Your task to perform on an android device: Go to Yahoo.com Image 0: 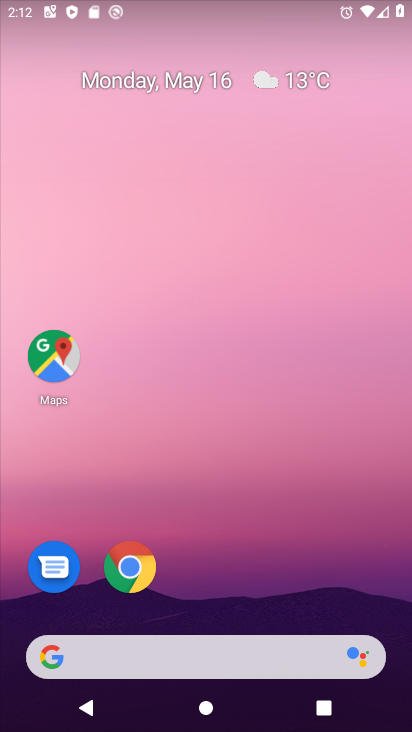
Step 0: press home button
Your task to perform on an android device: Go to Yahoo.com Image 1: 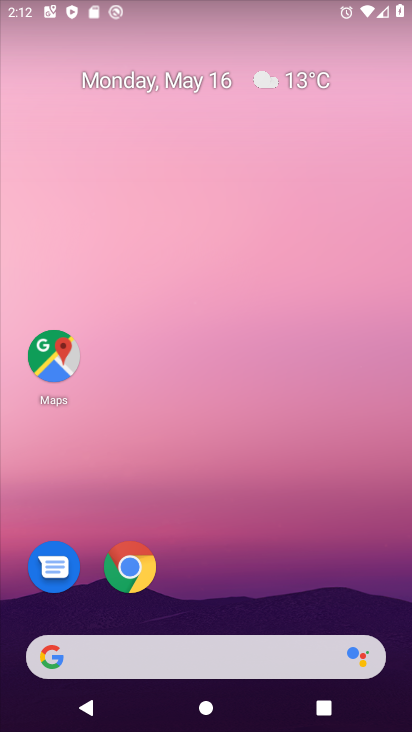
Step 1: click (137, 585)
Your task to perform on an android device: Go to Yahoo.com Image 2: 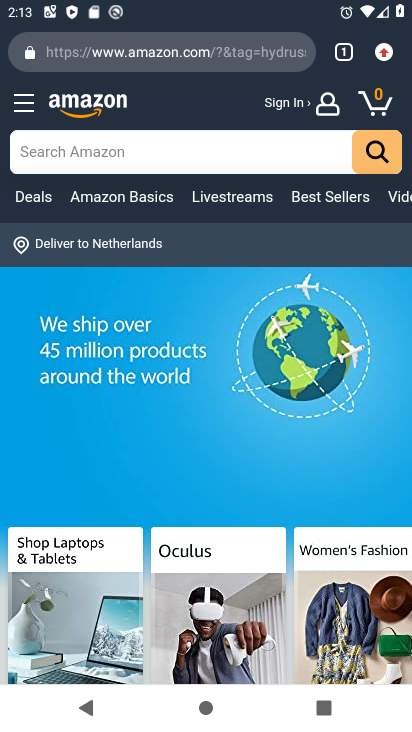
Step 2: click (126, 46)
Your task to perform on an android device: Go to Yahoo.com Image 3: 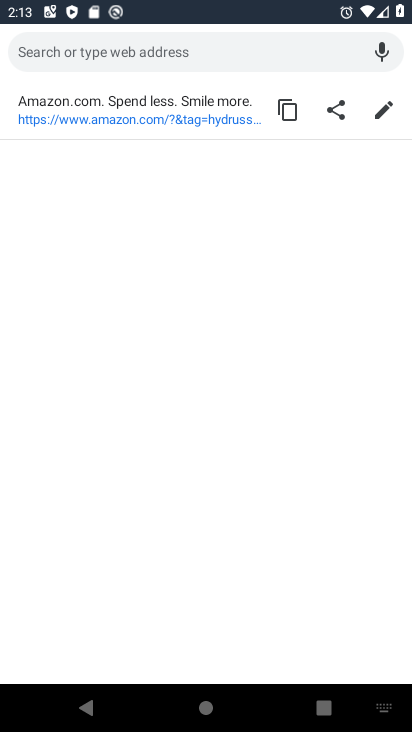
Step 3: type " Yahoo.com"
Your task to perform on an android device: Go to Yahoo.com Image 4: 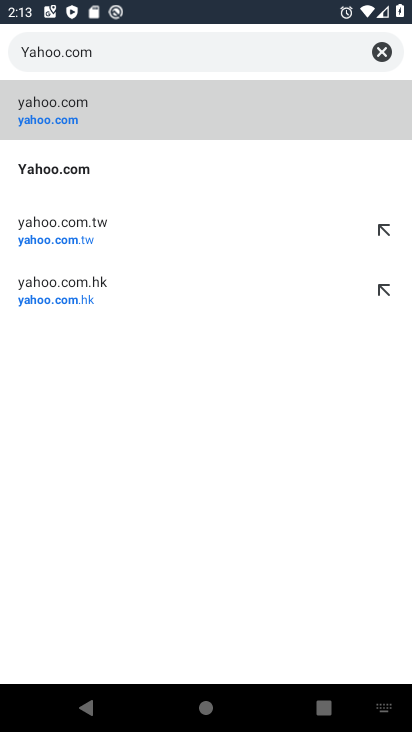
Step 4: click (116, 116)
Your task to perform on an android device: Go to Yahoo.com Image 5: 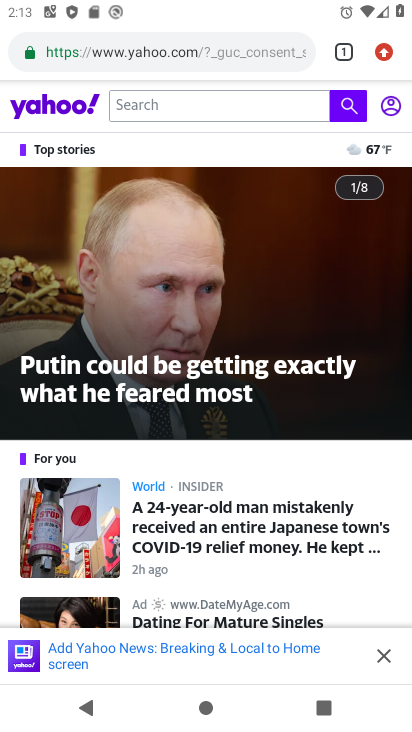
Step 5: task complete